Your task to perform on an android device: make emails show in primary in the gmail app Image 0: 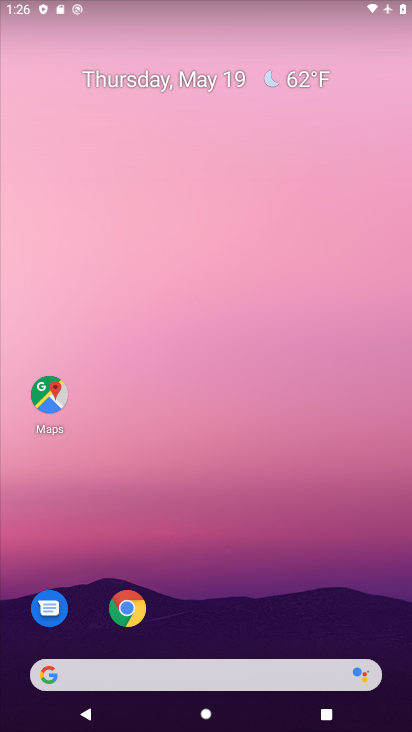
Step 0: drag from (222, 619) to (232, 32)
Your task to perform on an android device: make emails show in primary in the gmail app Image 1: 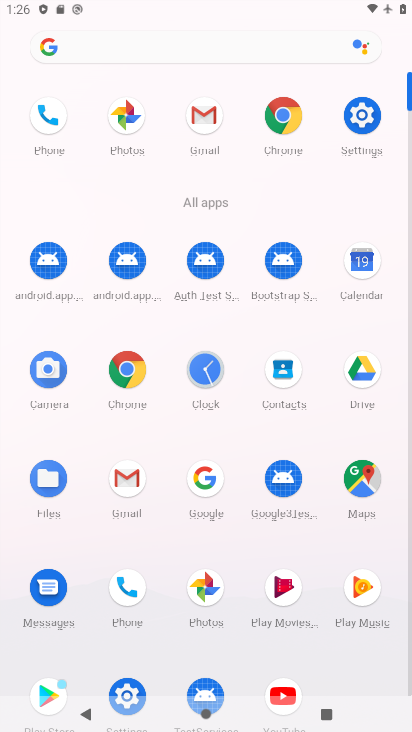
Step 1: click (209, 131)
Your task to perform on an android device: make emails show in primary in the gmail app Image 2: 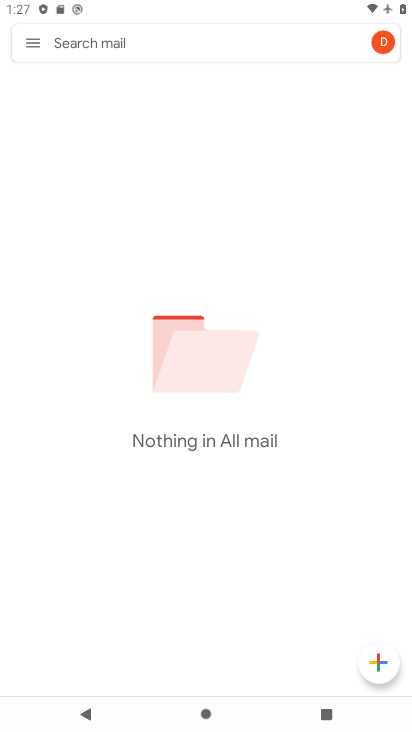
Step 2: click (29, 43)
Your task to perform on an android device: make emails show in primary in the gmail app Image 3: 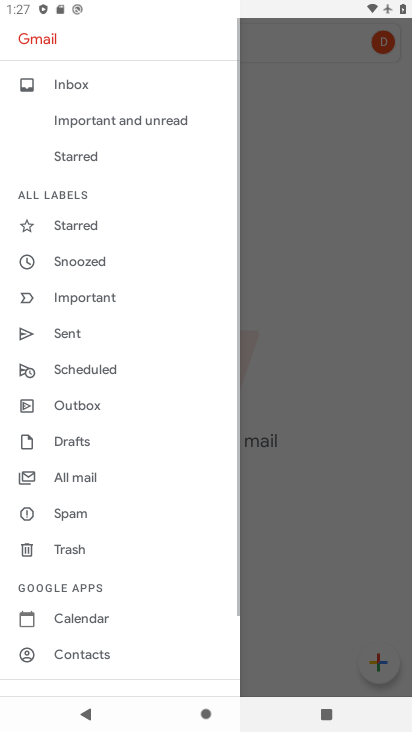
Step 3: drag from (84, 592) to (148, 290)
Your task to perform on an android device: make emails show in primary in the gmail app Image 4: 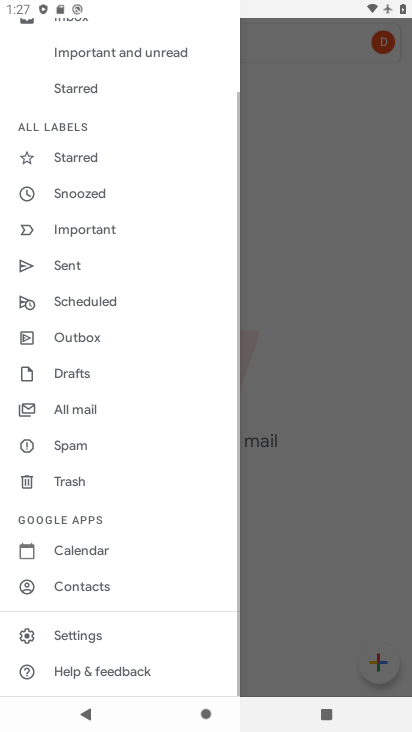
Step 4: click (117, 642)
Your task to perform on an android device: make emails show in primary in the gmail app Image 5: 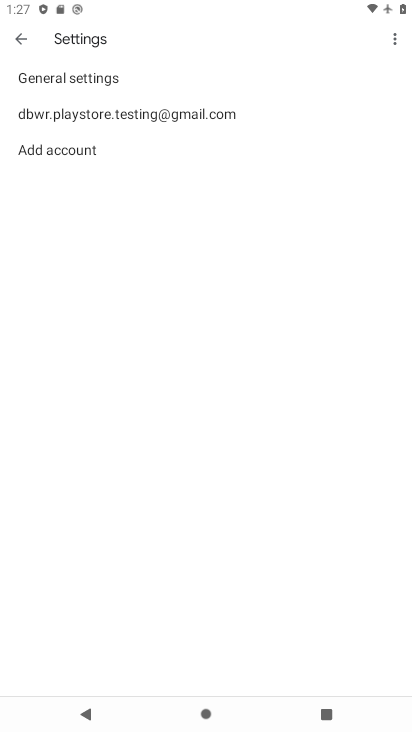
Step 5: click (110, 101)
Your task to perform on an android device: make emails show in primary in the gmail app Image 6: 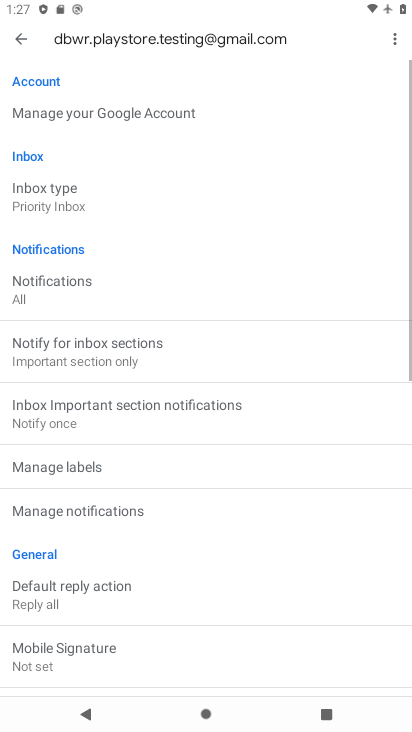
Step 6: task complete